Your task to perform on an android device: turn on notifications settings in the gmail app Image 0: 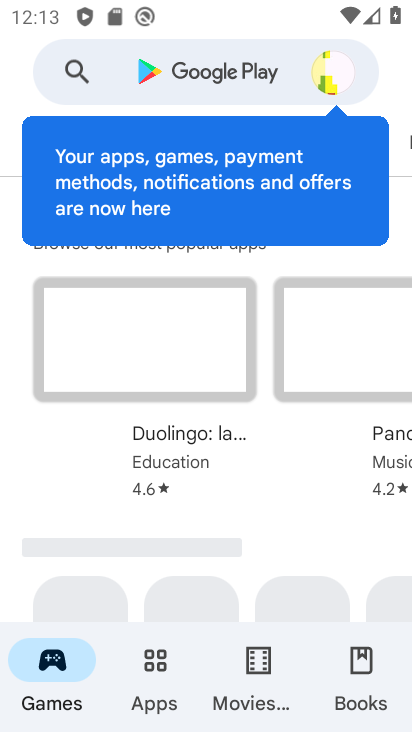
Step 0: press home button
Your task to perform on an android device: turn on notifications settings in the gmail app Image 1: 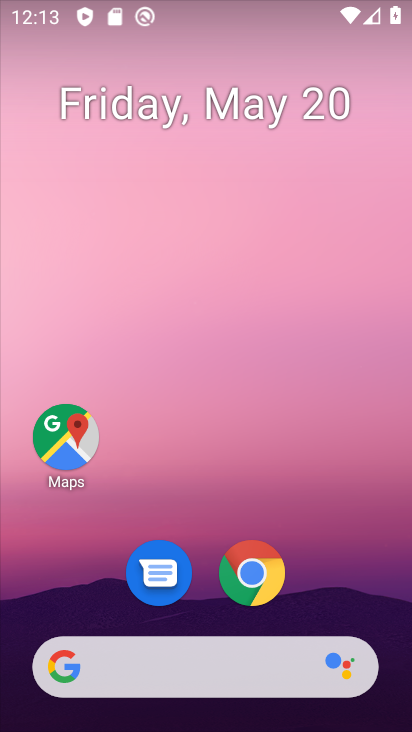
Step 1: drag from (341, 605) to (343, 45)
Your task to perform on an android device: turn on notifications settings in the gmail app Image 2: 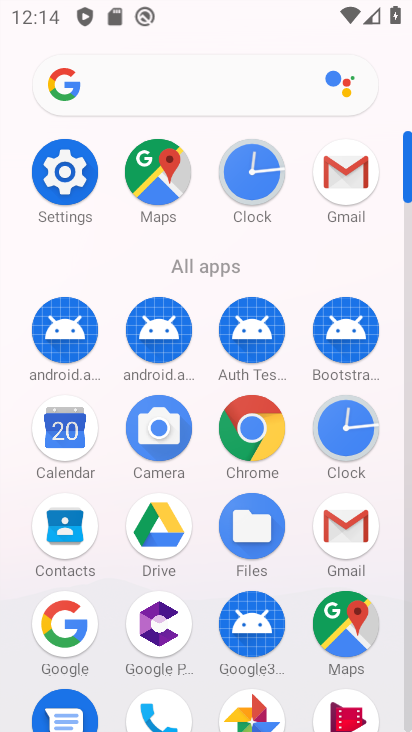
Step 2: click (329, 531)
Your task to perform on an android device: turn on notifications settings in the gmail app Image 3: 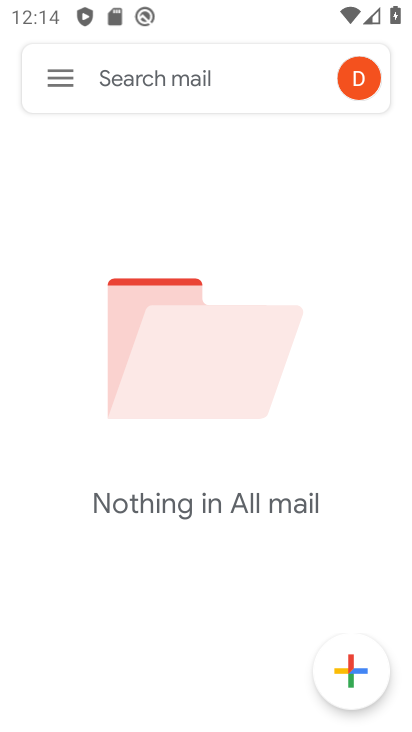
Step 3: click (62, 77)
Your task to perform on an android device: turn on notifications settings in the gmail app Image 4: 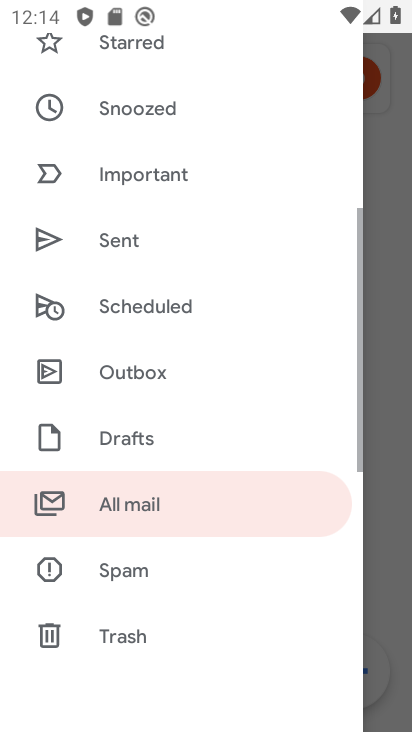
Step 4: drag from (129, 555) to (232, 169)
Your task to perform on an android device: turn on notifications settings in the gmail app Image 5: 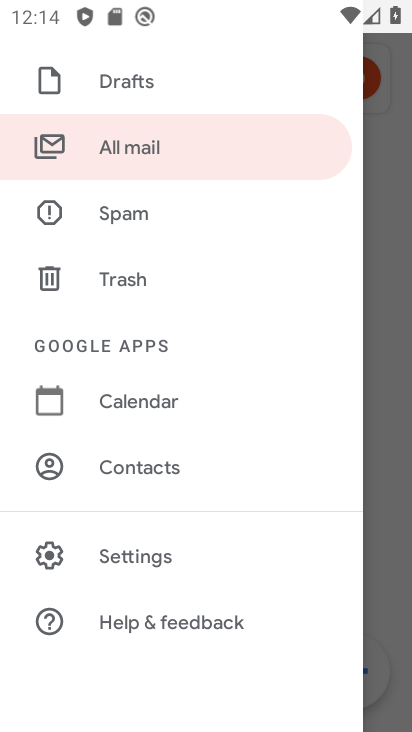
Step 5: click (166, 547)
Your task to perform on an android device: turn on notifications settings in the gmail app Image 6: 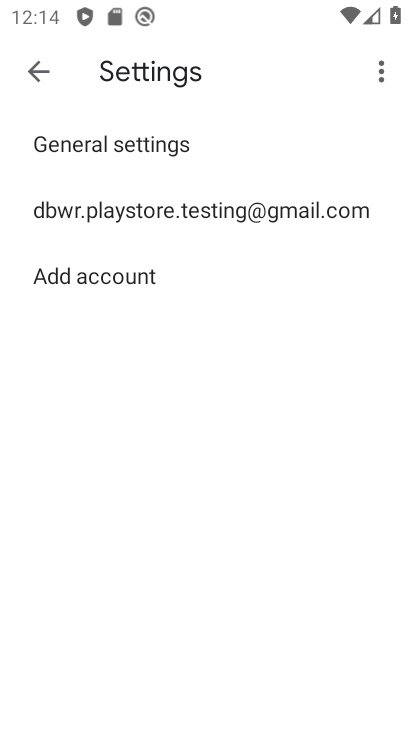
Step 6: click (122, 214)
Your task to perform on an android device: turn on notifications settings in the gmail app Image 7: 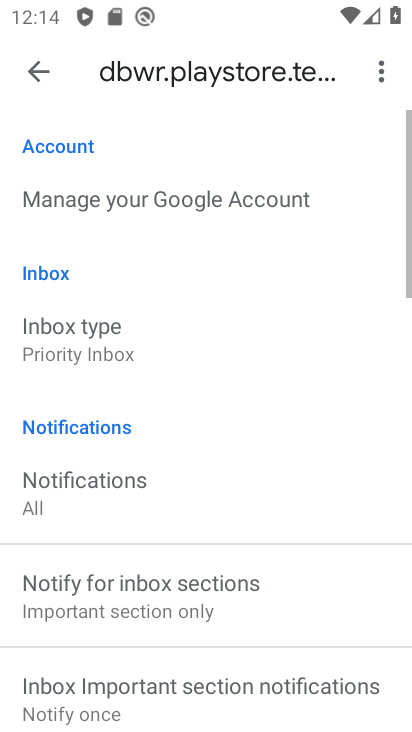
Step 7: drag from (185, 599) to (216, 155)
Your task to perform on an android device: turn on notifications settings in the gmail app Image 8: 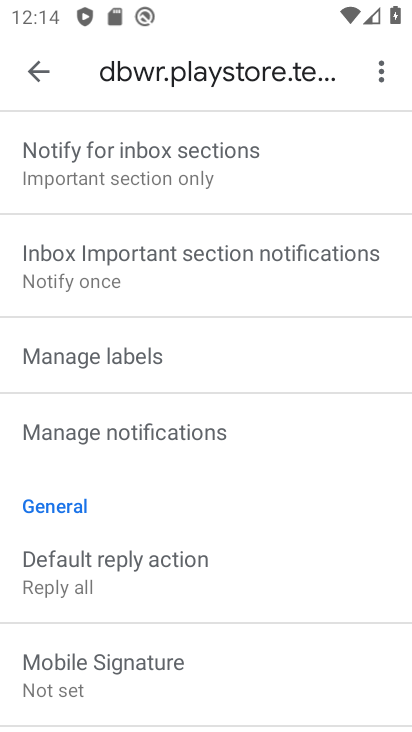
Step 8: click (130, 437)
Your task to perform on an android device: turn on notifications settings in the gmail app Image 9: 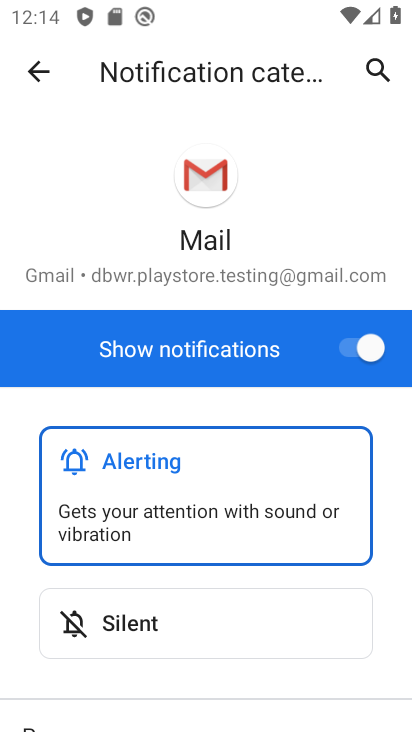
Step 9: task complete